Your task to perform on an android device: Go to network settings Image 0: 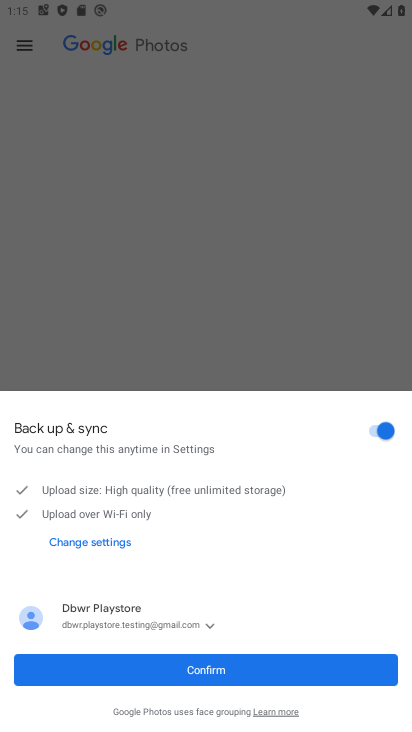
Step 0: press home button
Your task to perform on an android device: Go to network settings Image 1: 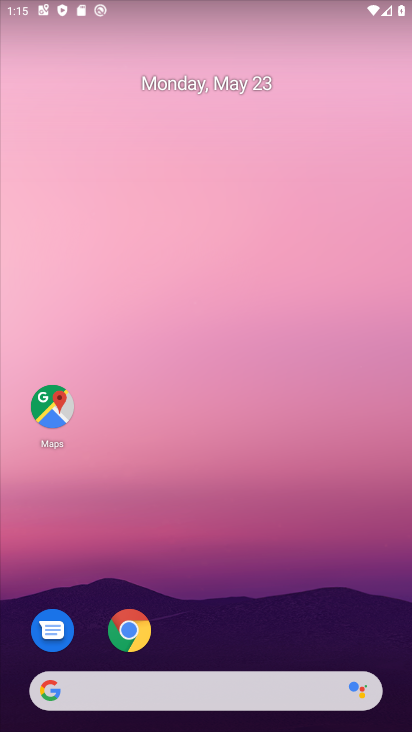
Step 1: drag from (354, 481) to (354, 271)
Your task to perform on an android device: Go to network settings Image 2: 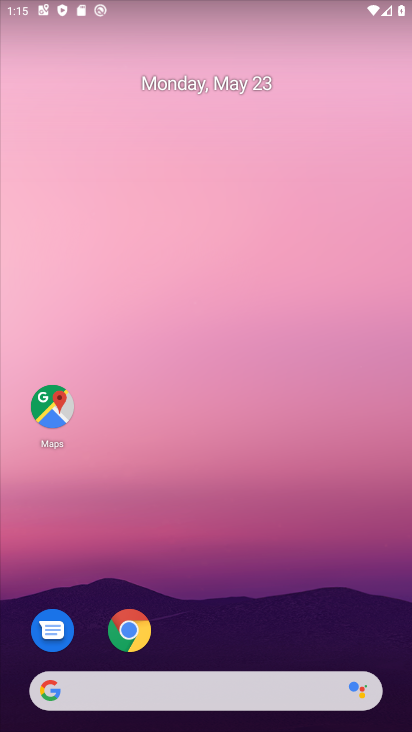
Step 2: drag from (304, 615) to (293, 340)
Your task to perform on an android device: Go to network settings Image 3: 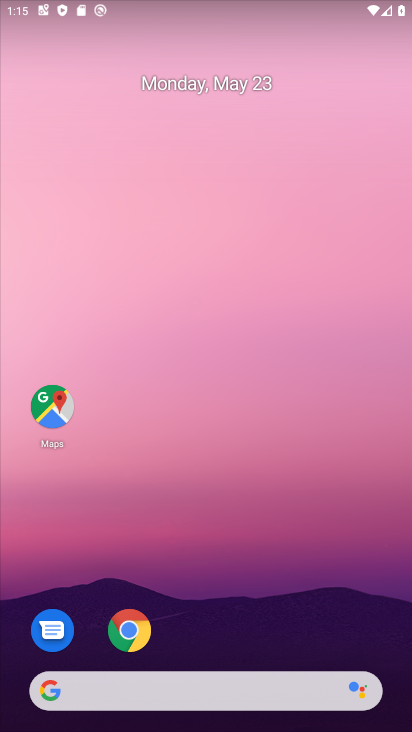
Step 3: drag from (297, 596) to (298, 332)
Your task to perform on an android device: Go to network settings Image 4: 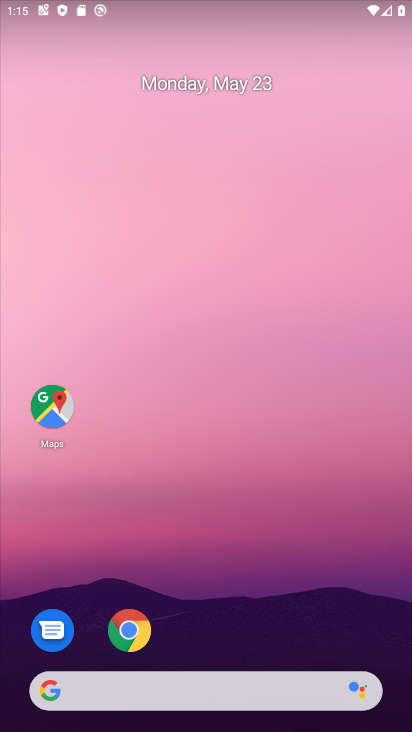
Step 4: drag from (297, 615) to (331, 224)
Your task to perform on an android device: Go to network settings Image 5: 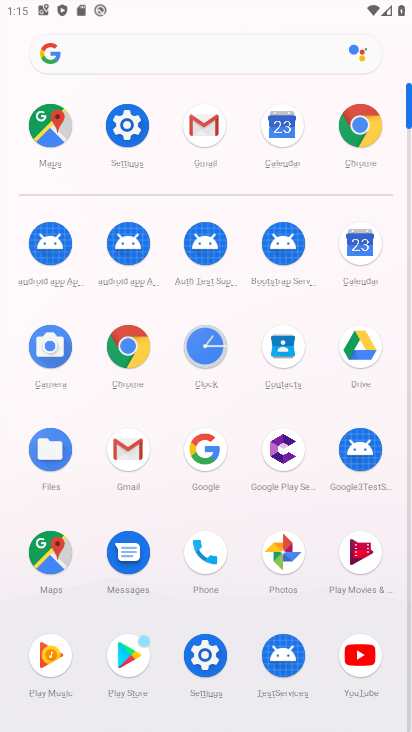
Step 5: click (221, 665)
Your task to perform on an android device: Go to network settings Image 6: 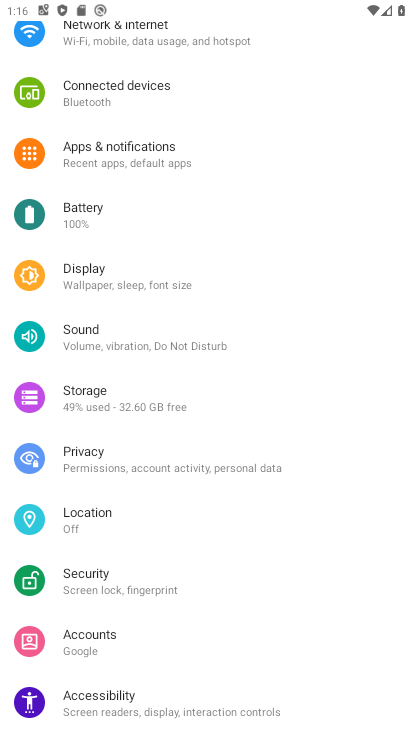
Step 6: drag from (177, 136) to (173, 434)
Your task to perform on an android device: Go to network settings Image 7: 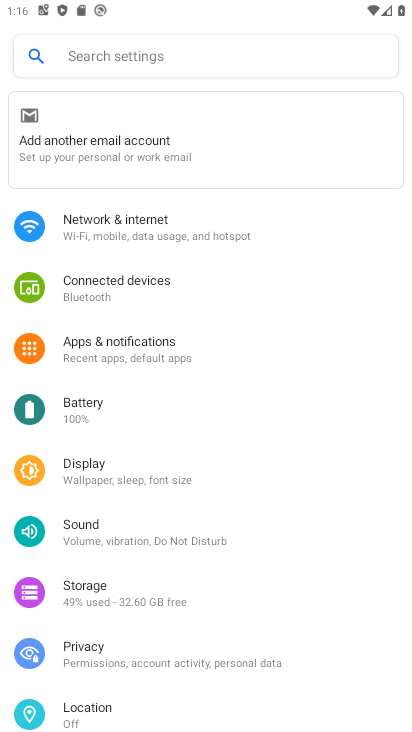
Step 7: click (170, 228)
Your task to perform on an android device: Go to network settings Image 8: 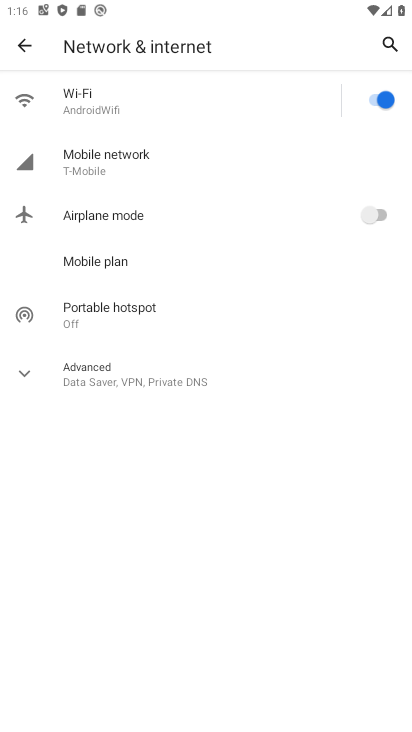
Step 8: task complete